Your task to perform on an android device: Open CNN.com Image 0: 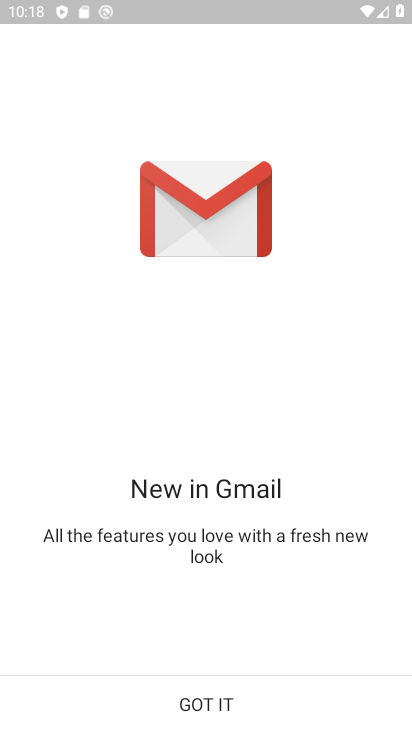
Step 0: press back button
Your task to perform on an android device: Open CNN.com Image 1: 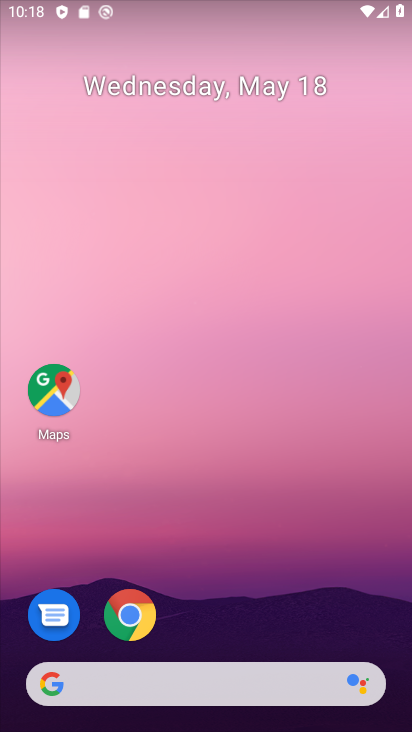
Step 1: drag from (220, 559) to (199, 3)
Your task to perform on an android device: Open CNN.com Image 2: 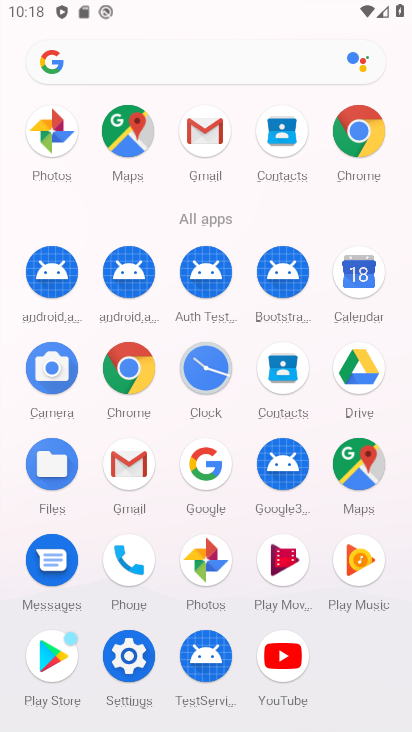
Step 2: click (128, 367)
Your task to perform on an android device: Open CNN.com Image 3: 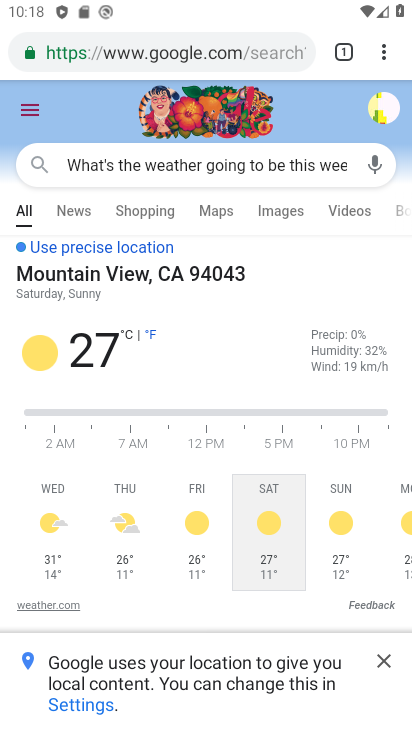
Step 3: click (214, 45)
Your task to perform on an android device: Open CNN.com Image 4: 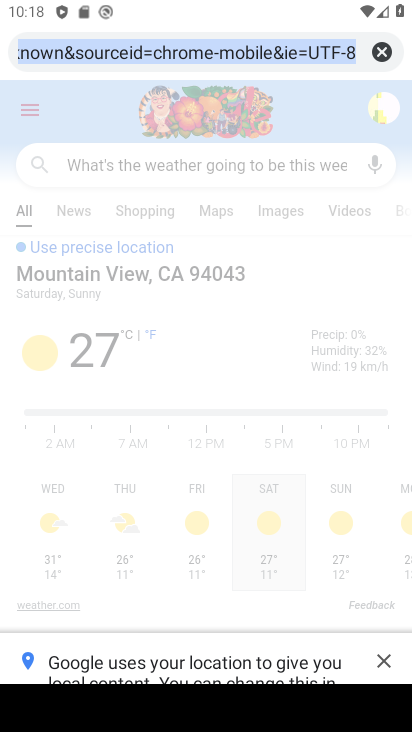
Step 4: click (377, 53)
Your task to perform on an android device: Open CNN.com Image 5: 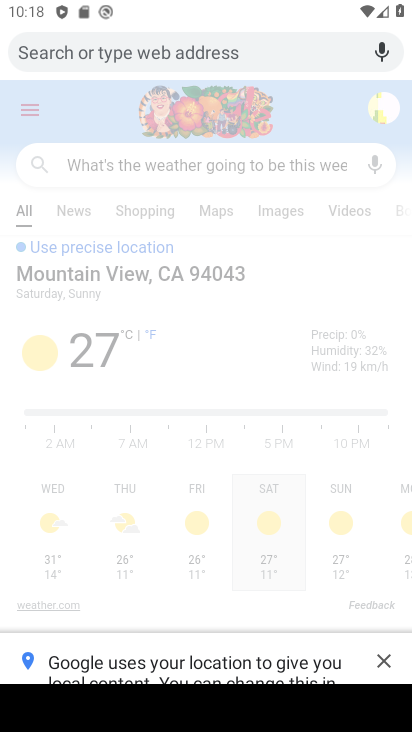
Step 5: type "CNN.com"
Your task to perform on an android device: Open CNN.com Image 6: 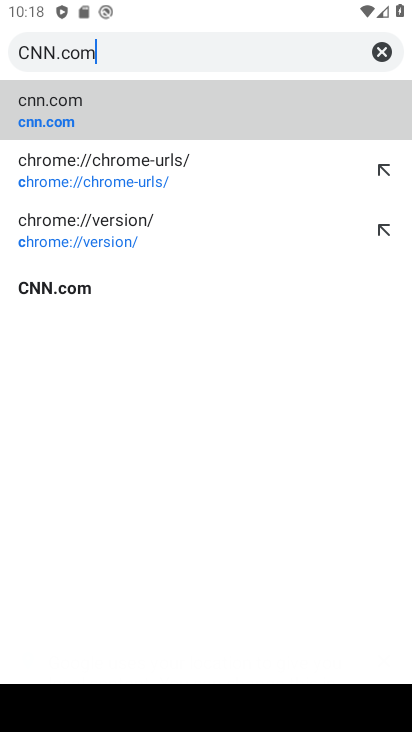
Step 6: type ""
Your task to perform on an android device: Open CNN.com Image 7: 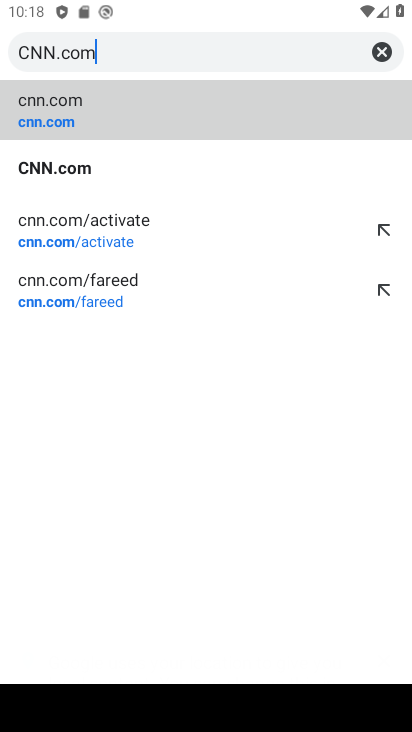
Step 7: click (113, 116)
Your task to perform on an android device: Open CNN.com Image 8: 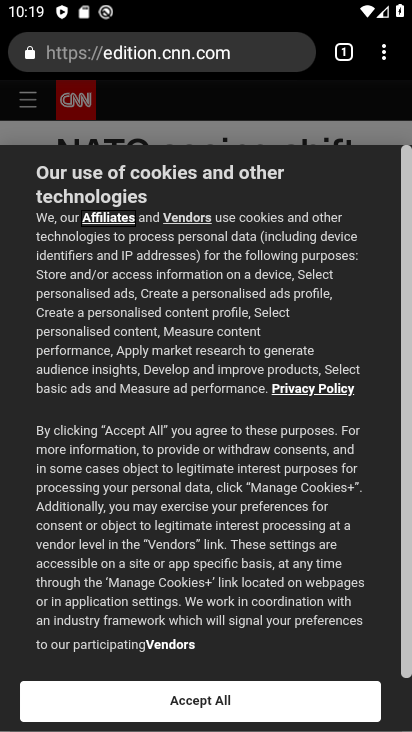
Step 8: drag from (278, 453) to (271, 260)
Your task to perform on an android device: Open CNN.com Image 9: 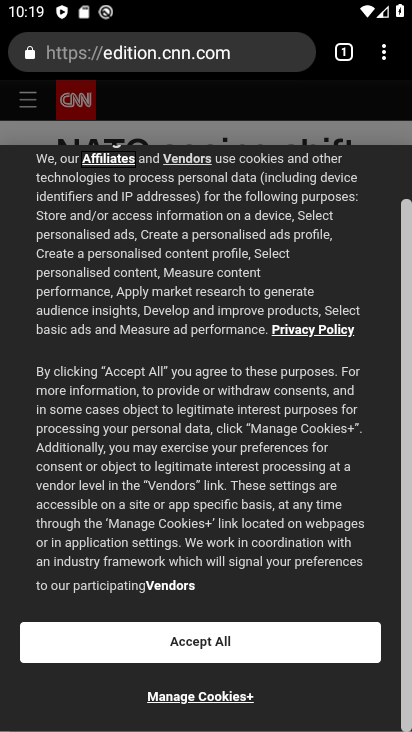
Step 9: click (233, 638)
Your task to perform on an android device: Open CNN.com Image 10: 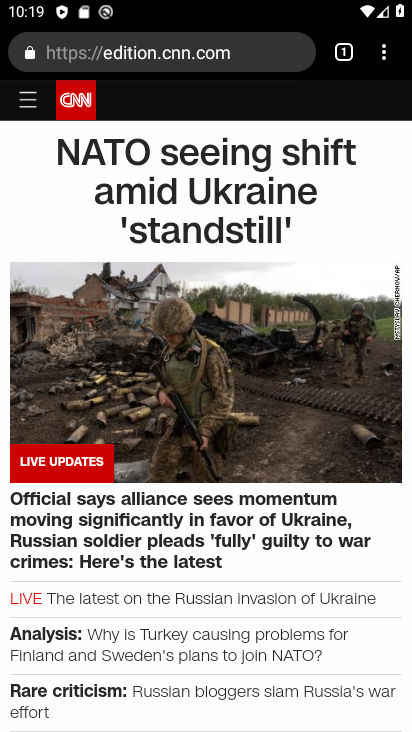
Step 10: task complete